Your task to perform on an android device: Go to Yahoo.com Image 0: 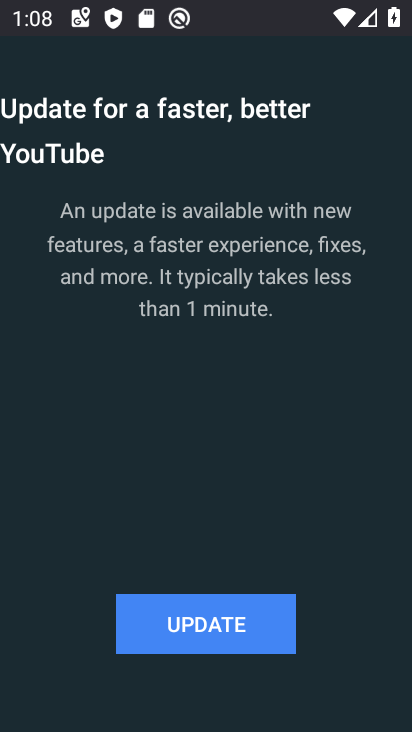
Step 0: press home button
Your task to perform on an android device: Go to Yahoo.com Image 1: 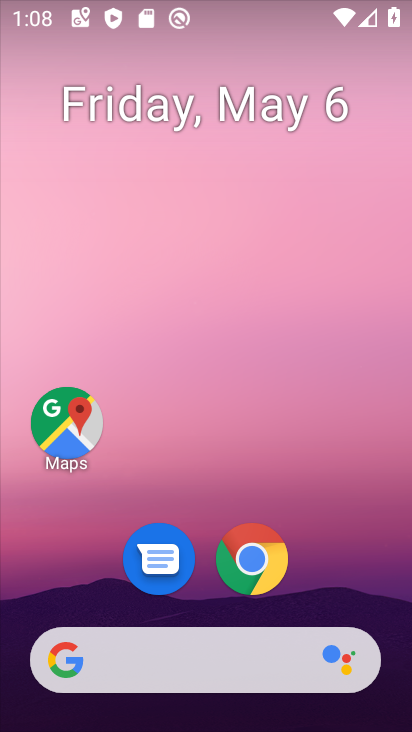
Step 1: drag from (211, 662) to (328, 82)
Your task to perform on an android device: Go to Yahoo.com Image 2: 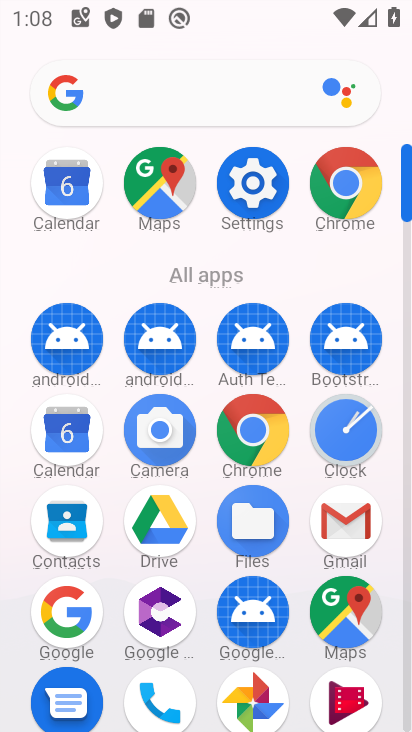
Step 2: click (358, 191)
Your task to perform on an android device: Go to Yahoo.com Image 3: 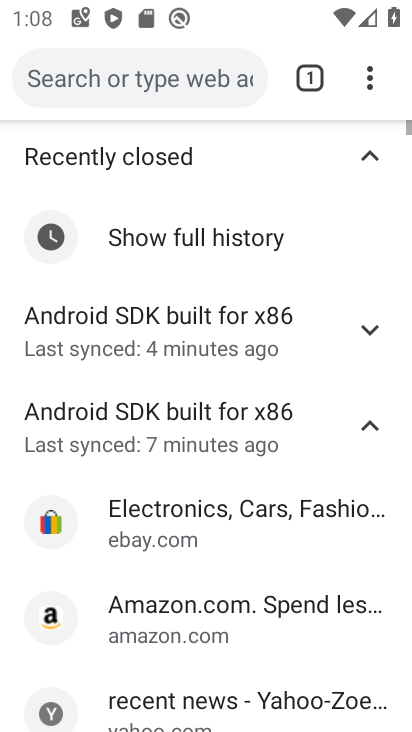
Step 3: drag from (370, 80) to (162, 152)
Your task to perform on an android device: Go to Yahoo.com Image 4: 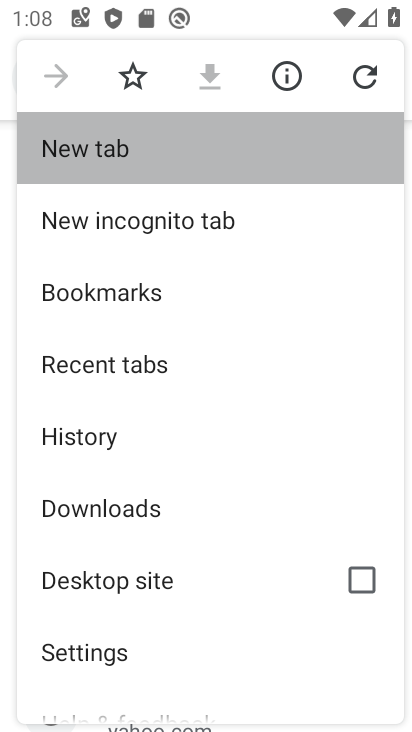
Step 4: click (162, 153)
Your task to perform on an android device: Go to Yahoo.com Image 5: 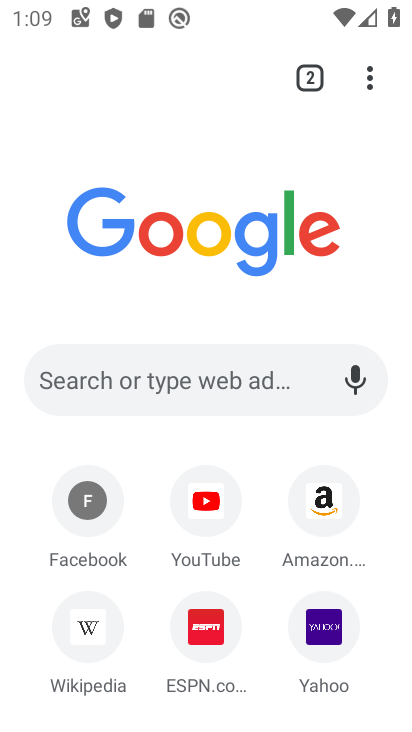
Step 5: click (337, 639)
Your task to perform on an android device: Go to Yahoo.com Image 6: 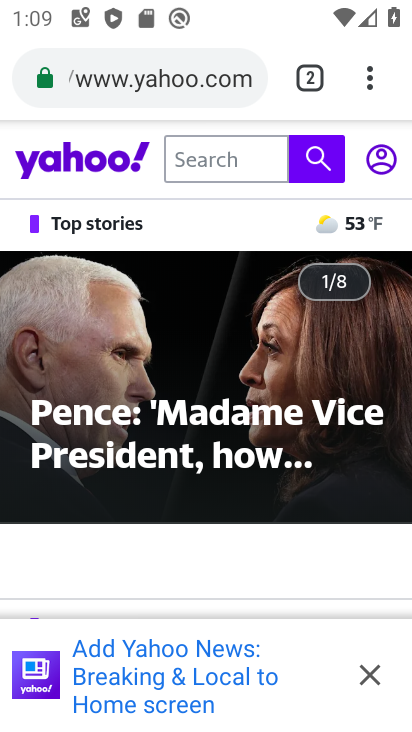
Step 6: task complete